Your task to perform on an android device: add a contact in the contacts app Image 0: 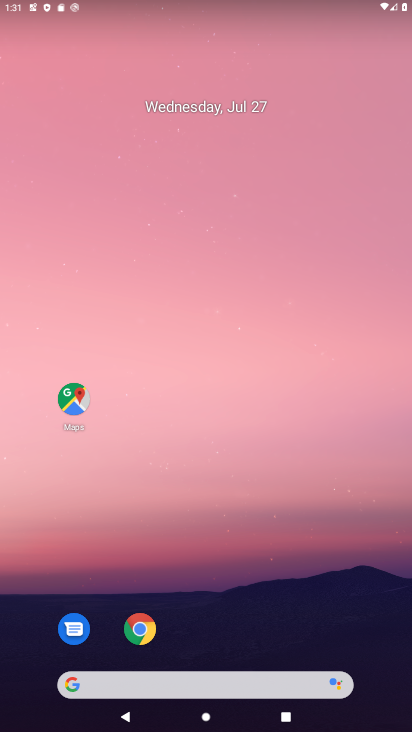
Step 0: drag from (378, 657) to (275, 136)
Your task to perform on an android device: add a contact in the contacts app Image 1: 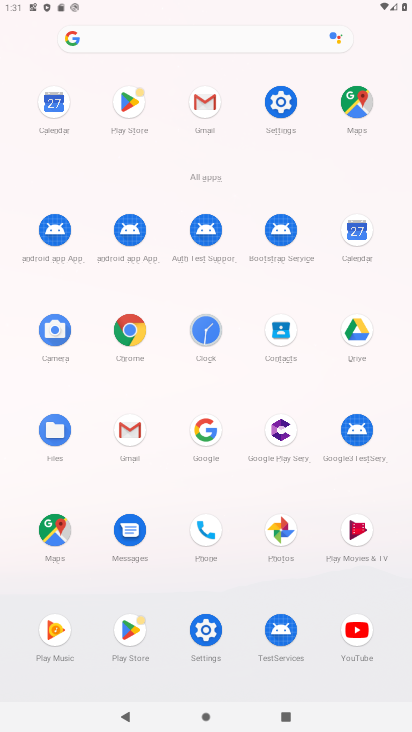
Step 1: click (279, 331)
Your task to perform on an android device: add a contact in the contacts app Image 2: 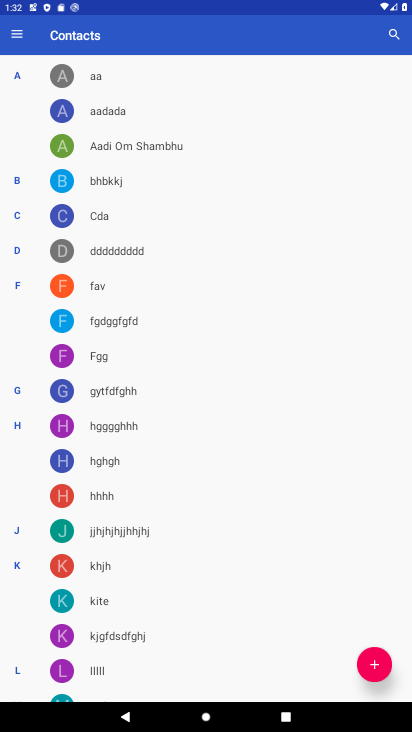
Step 2: click (370, 660)
Your task to perform on an android device: add a contact in the contacts app Image 3: 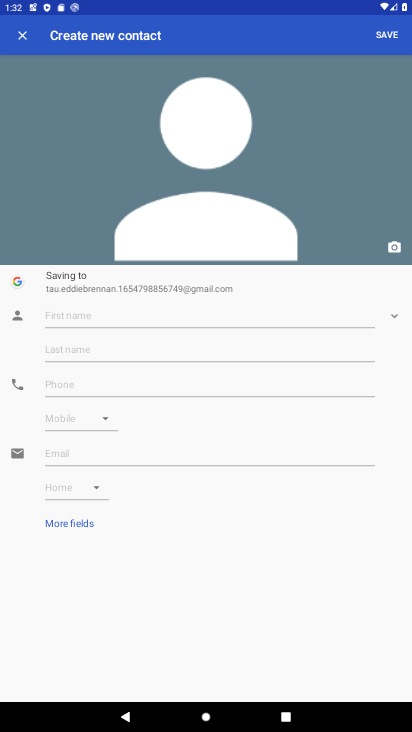
Step 3: click (257, 313)
Your task to perform on an android device: add a contact in the contacts app Image 4: 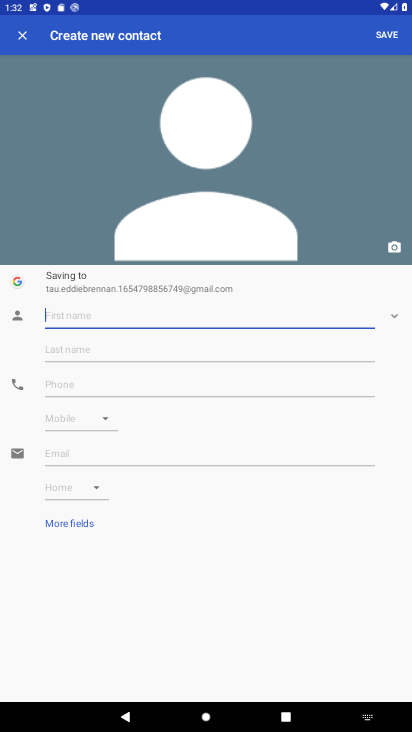
Step 4: type "hjbxjhbhjb"
Your task to perform on an android device: add a contact in the contacts app Image 5: 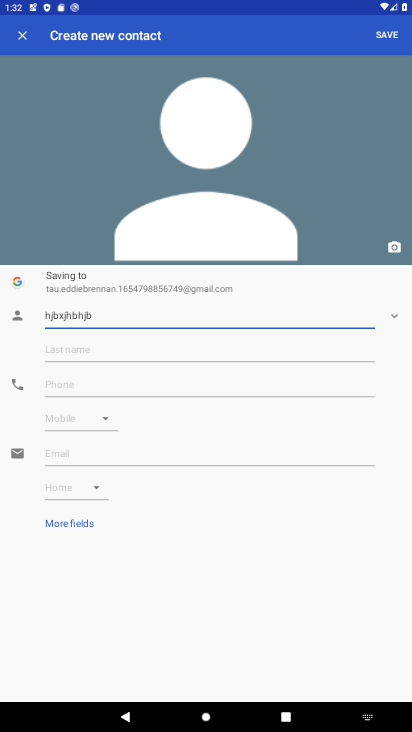
Step 5: click (297, 387)
Your task to perform on an android device: add a contact in the contacts app Image 6: 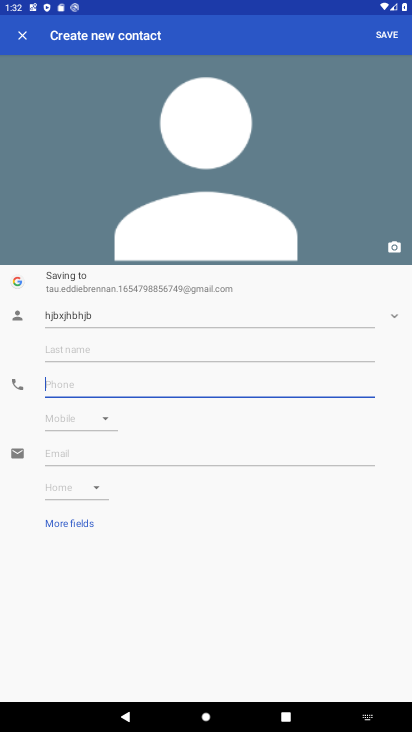
Step 6: type "89787897"
Your task to perform on an android device: add a contact in the contacts app Image 7: 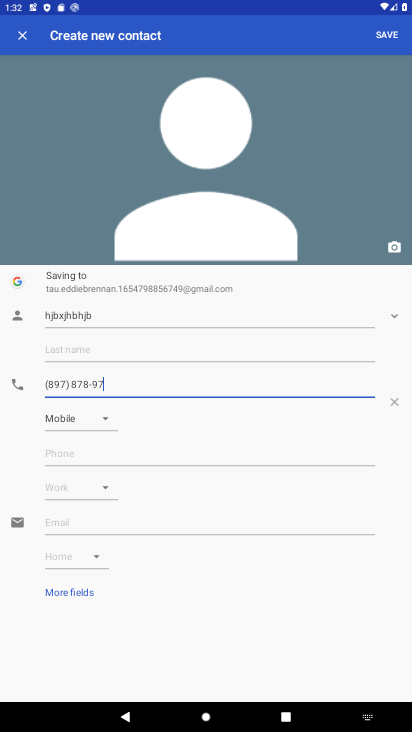
Step 7: click (387, 39)
Your task to perform on an android device: add a contact in the contacts app Image 8: 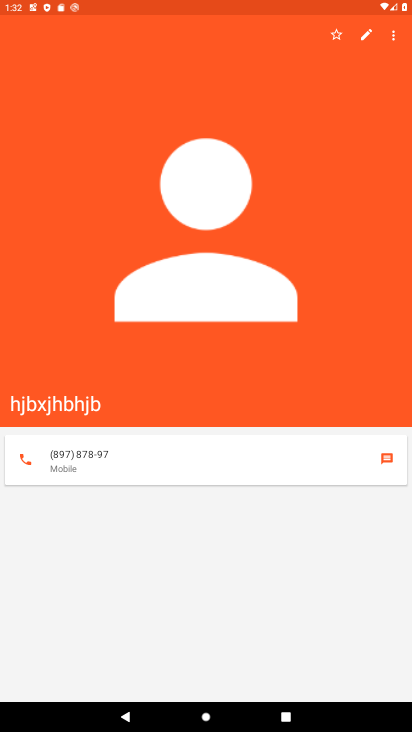
Step 8: task complete